Your task to perform on an android device: toggle location history Image 0: 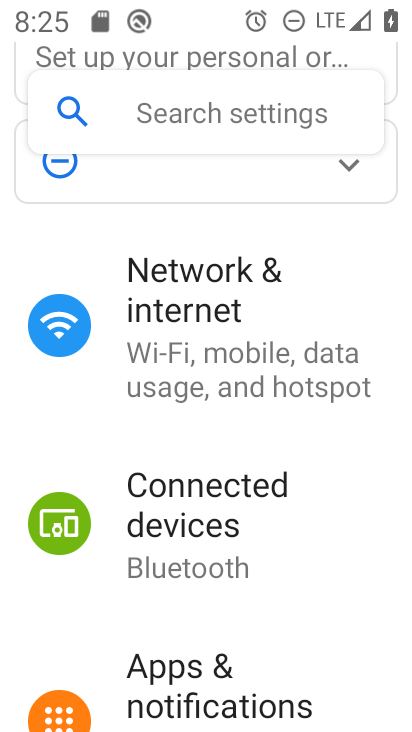
Step 0: press home button
Your task to perform on an android device: toggle location history Image 1: 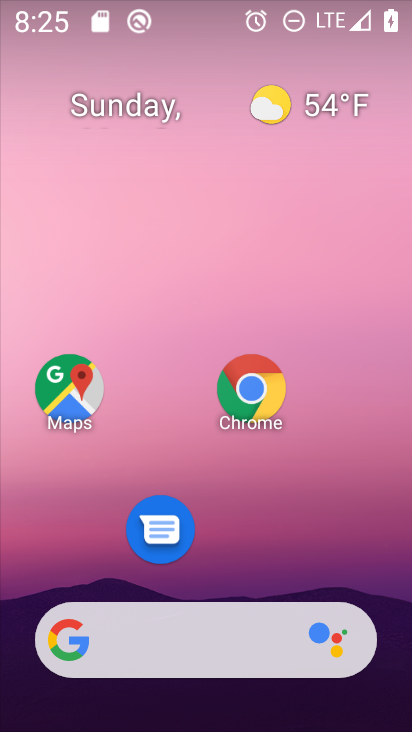
Step 1: drag from (254, 577) to (334, 28)
Your task to perform on an android device: toggle location history Image 2: 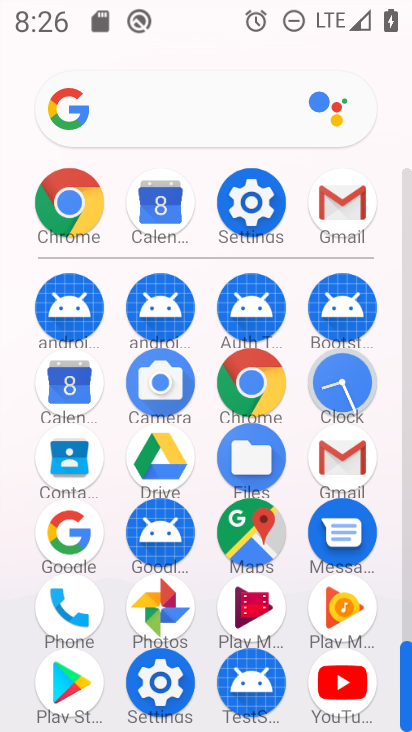
Step 2: click (255, 215)
Your task to perform on an android device: toggle location history Image 3: 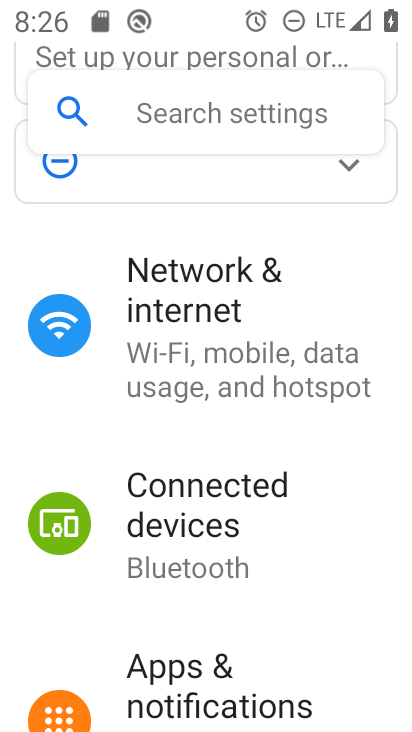
Step 3: drag from (221, 542) to (277, 121)
Your task to perform on an android device: toggle location history Image 4: 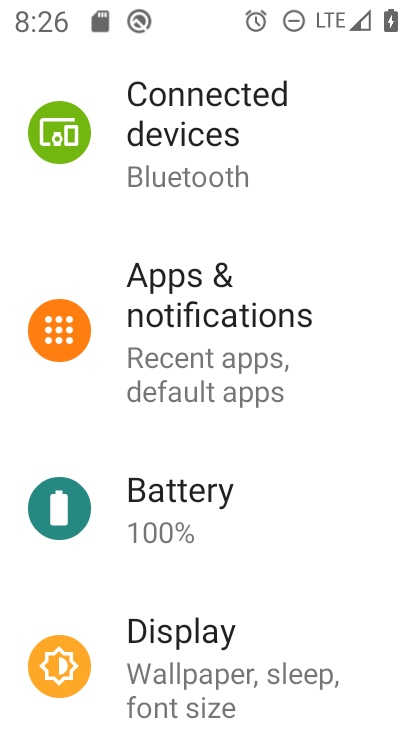
Step 4: drag from (256, 495) to (303, 76)
Your task to perform on an android device: toggle location history Image 5: 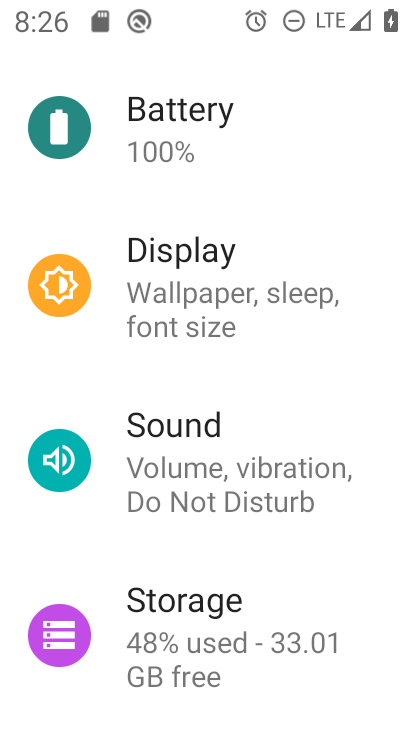
Step 5: drag from (200, 549) to (238, 262)
Your task to perform on an android device: toggle location history Image 6: 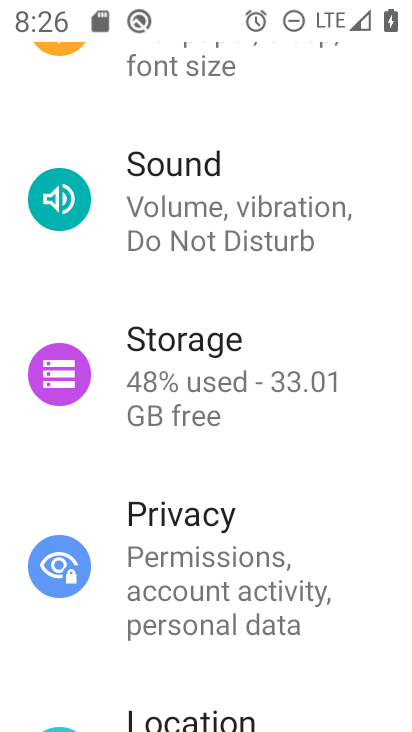
Step 6: drag from (205, 589) to (254, 326)
Your task to perform on an android device: toggle location history Image 7: 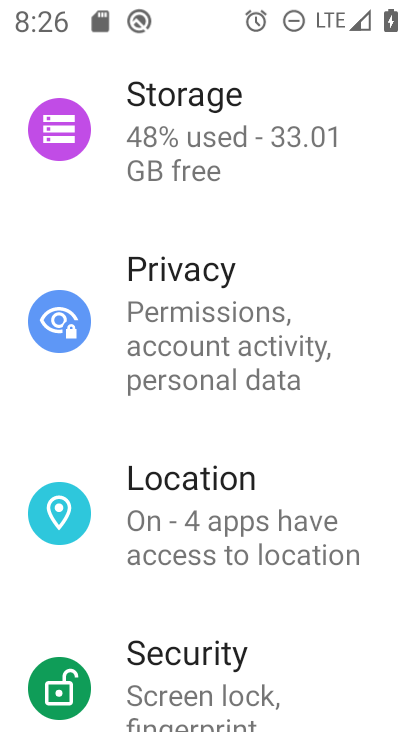
Step 7: click (214, 565)
Your task to perform on an android device: toggle location history Image 8: 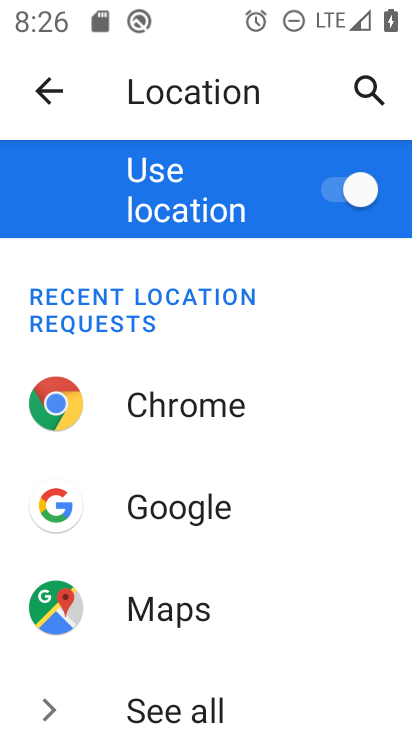
Step 8: drag from (198, 602) to (258, 157)
Your task to perform on an android device: toggle location history Image 9: 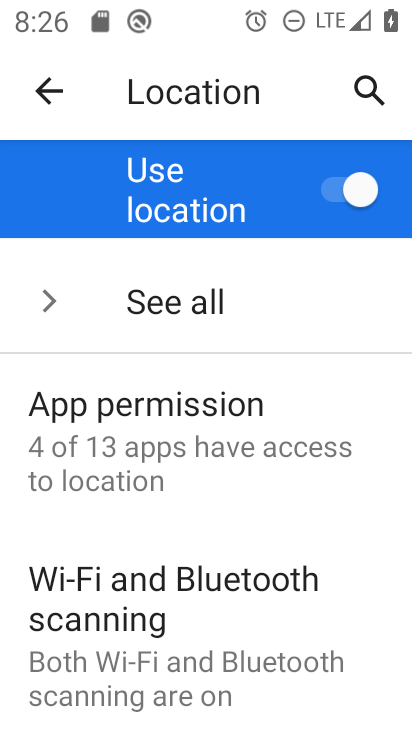
Step 9: drag from (165, 608) to (224, 172)
Your task to perform on an android device: toggle location history Image 10: 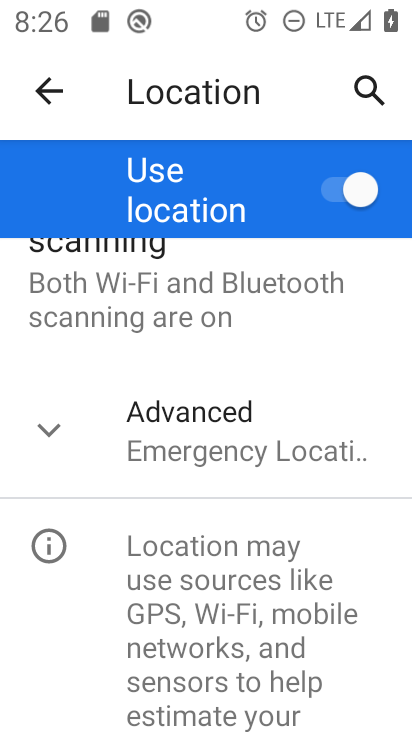
Step 10: click (208, 445)
Your task to perform on an android device: toggle location history Image 11: 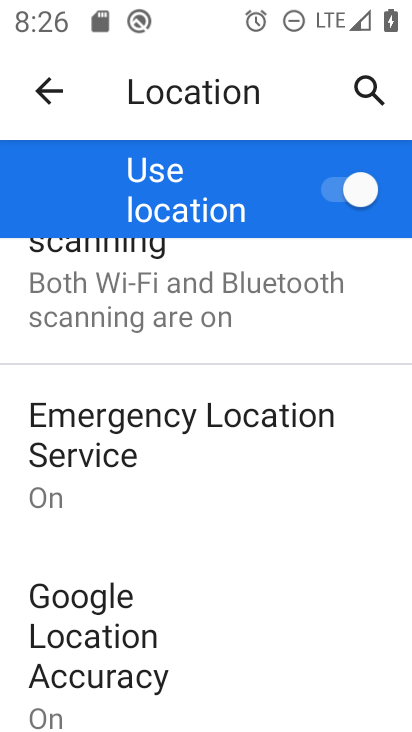
Step 11: drag from (134, 549) to (180, 353)
Your task to perform on an android device: toggle location history Image 12: 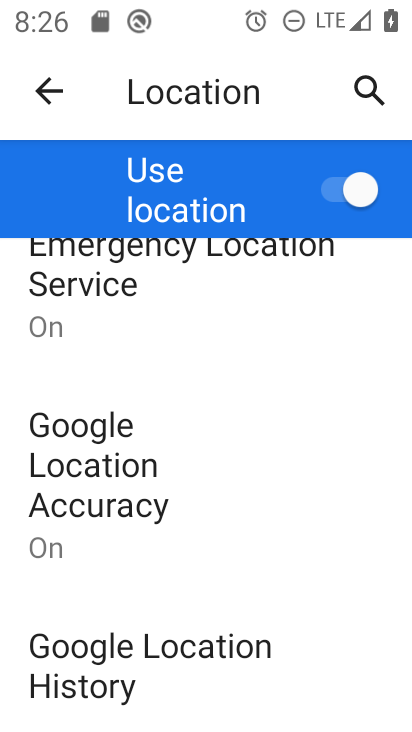
Step 12: drag from (132, 591) to (189, 376)
Your task to perform on an android device: toggle location history Image 13: 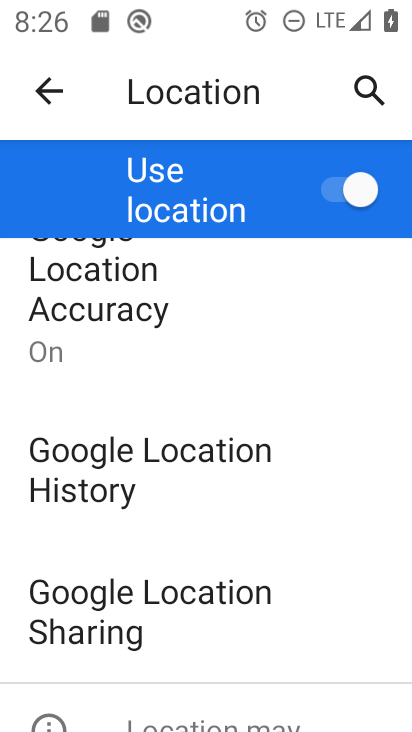
Step 13: click (136, 491)
Your task to perform on an android device: toggle location history Image 14: 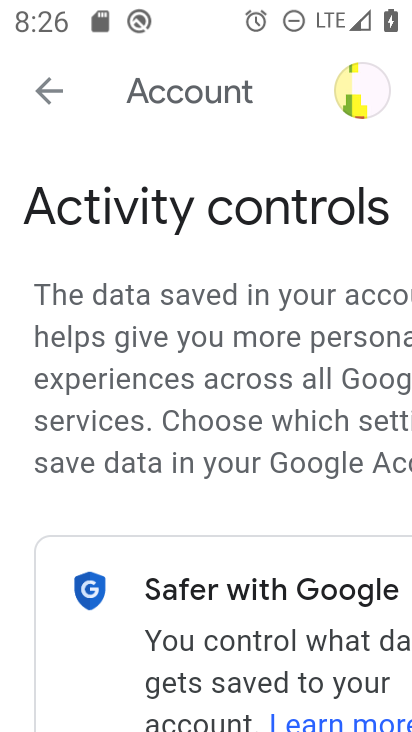
Step 14: drag from (205, 566) to (258, 241)
Your task to perform on an android device: toggle location history Image 15: 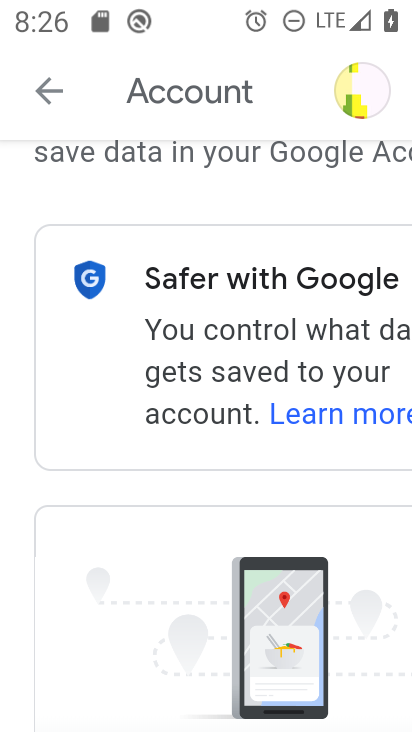
Step 15: drag from (229, 565) to (261, 191)
Your task to perform on an android device: toggle location history Image 16: 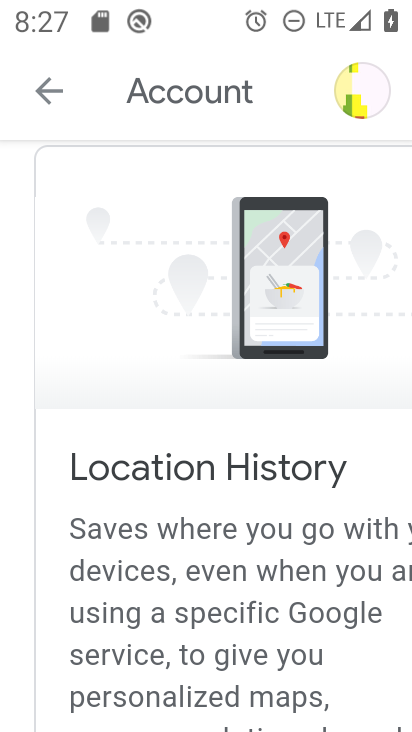
Step 16: drag from (233, 513) to (262, 180)
Your task to perform on an android device: toggle location history Image 17: 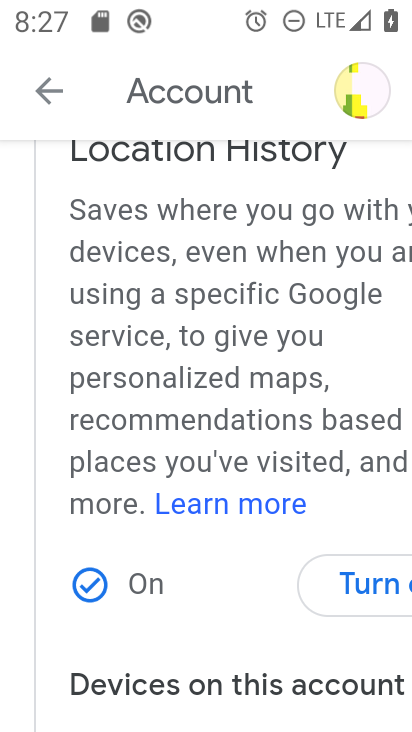
Step 17: click (342, 585)
Your task to perform on an android device: toggle location history Image 18: 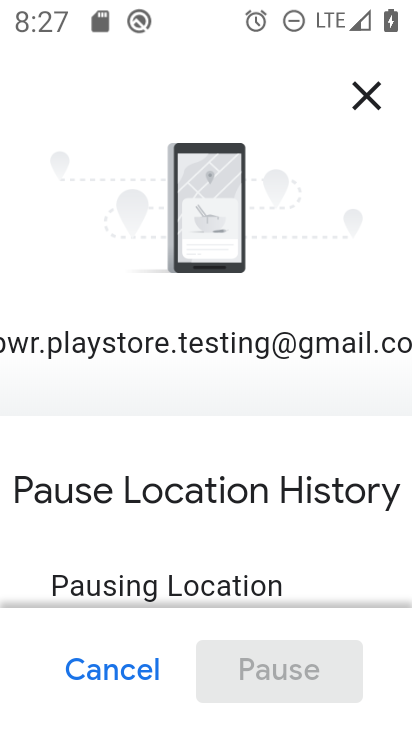
Step 18: drag from (265, 593) to (281, 152)
Your task to perform on an android device: toggle location history Image 19: 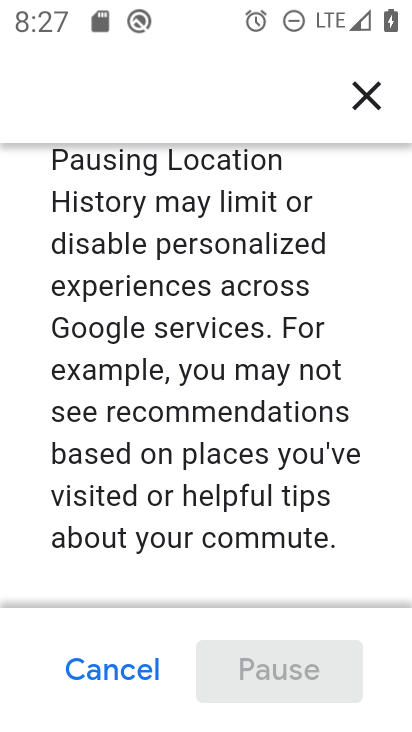
Step 19: drag from (192, 511) to (263, 49)
Your task to perform on an android device: toggle location history Image 20: 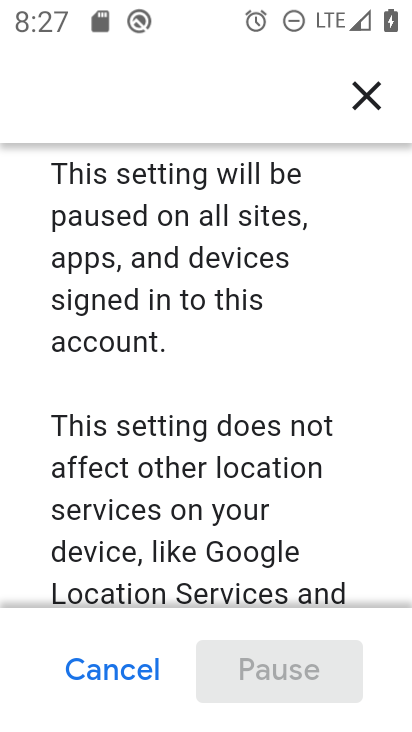
Step 20: drag from (228, 568) to (270, 155)
Your task to perform on an android device: toggle location history Image 21: 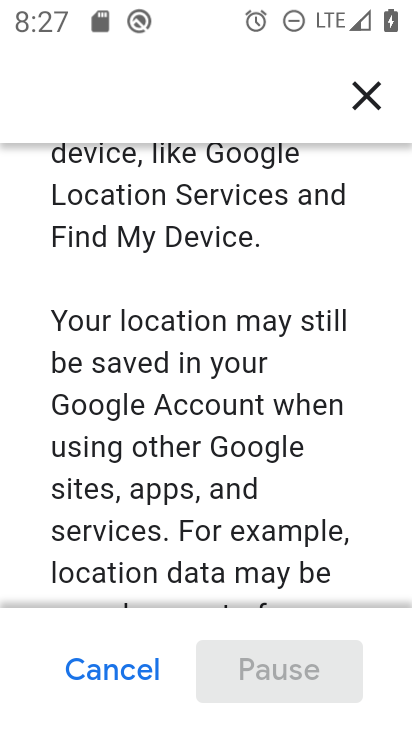
Step 21: drag from (266, 562) to (279, 129)
Your task to perform on an android device: toggle location history Image 22: 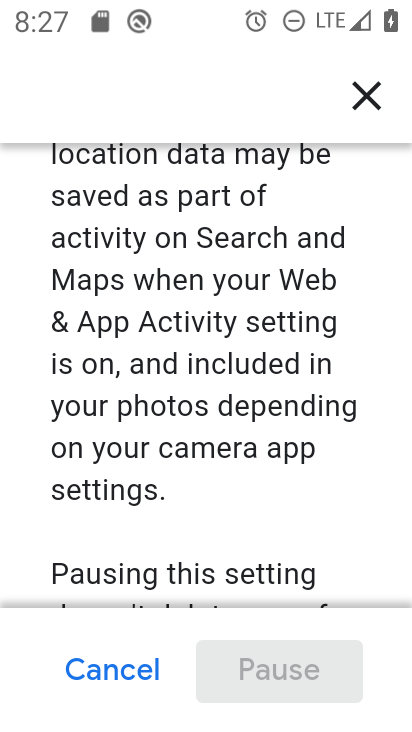
Step 22: drag from (244, 541) to (272, 84)
Your task to perform on an android device: toggle location history Image 23: 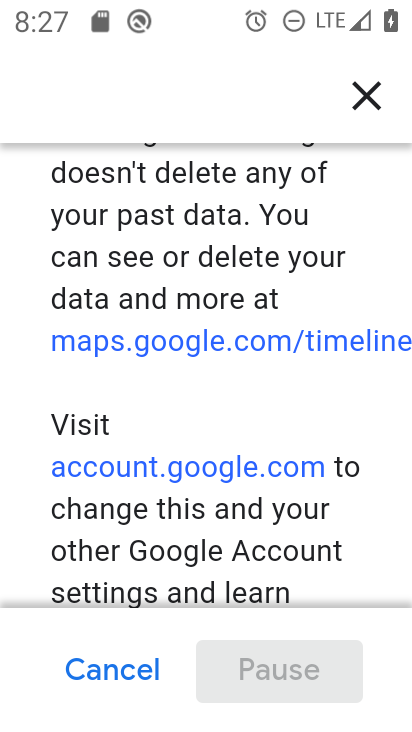
Step 23: drag from (182, 616) to (213, 230)
Your task to perform on an android device: toggle location history Image 24: 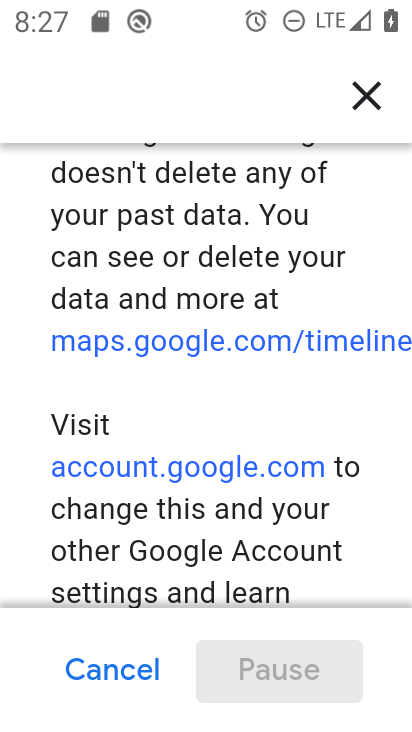
Step 24: drag from (201, 556) to (289, 36)
Your task to perform on an android device: toggle location history Image 25: 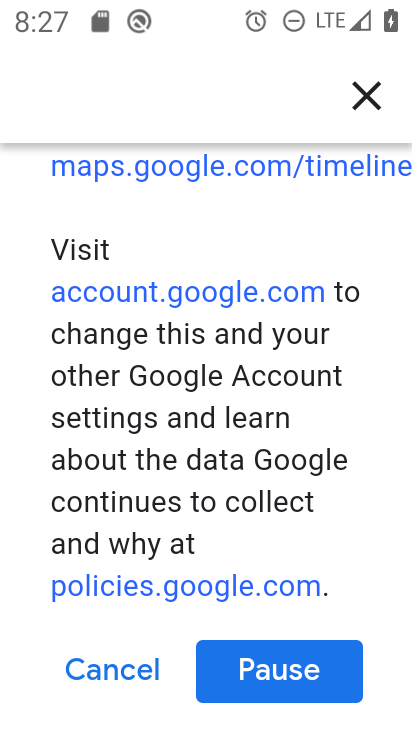
Step 25: click (239, 689)
Your task to perform on an android device: toggle location history Image 26: 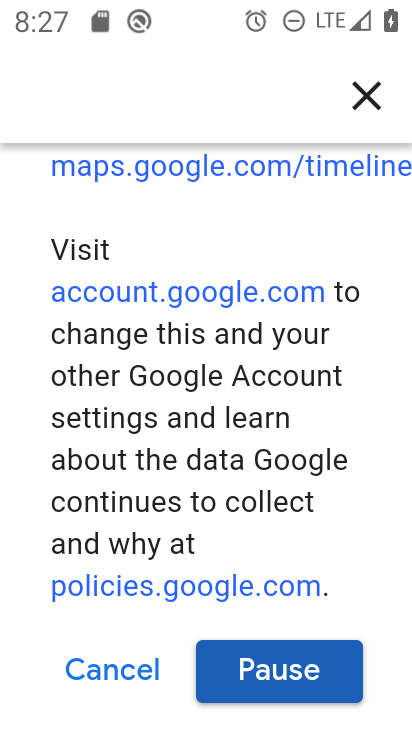
Step 26: click (243, 665)
Your task to perform on an android device: toggle location history Image 27: 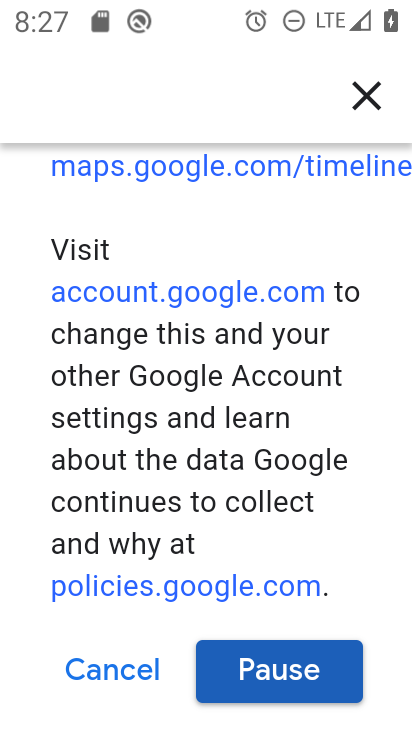
Step 27: click (250, 669)
Your task to perform on an android device: toggle location history Image 28: 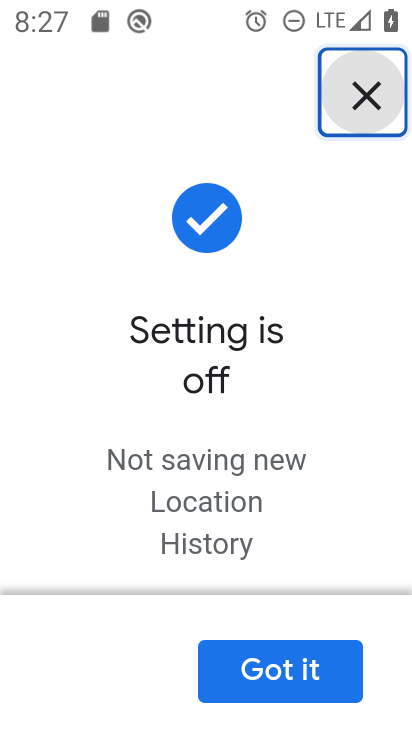
Step 28: click (234, 664)
Your task to perform on an android device: toggle location history Image 29: 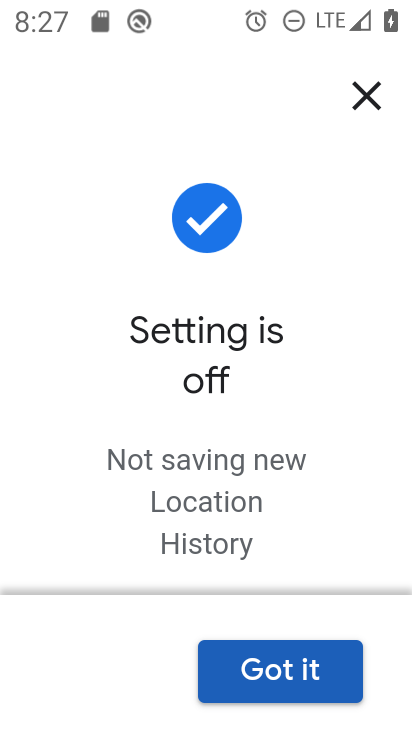
Step 29: click (307, 697)
Your task to perform on an android device: toggle location history Image 30: 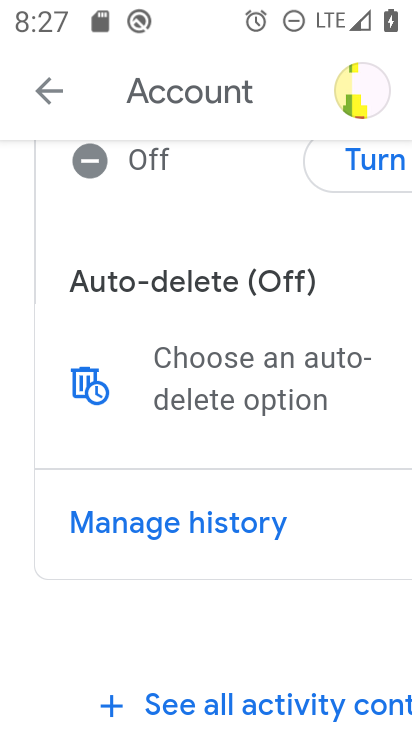
Step 30: task complete